Your task to perform on an android device: Open Google Chrome and open the bookmarks view Image 0: 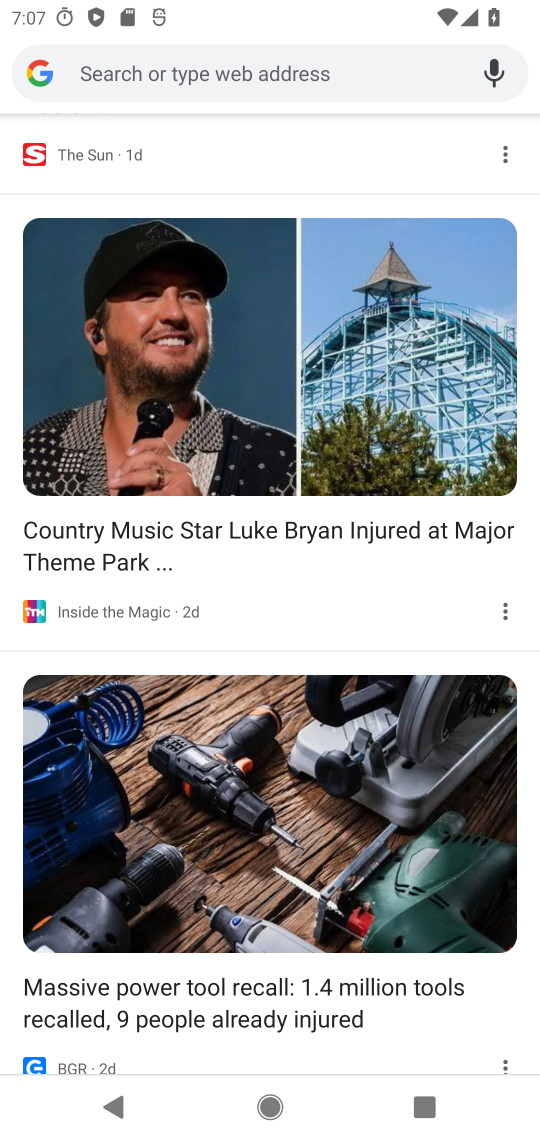
Step 0: drag from (257, 727) to (205, 325)
Your task to perform on an android device: Open Google Chrome and open the bookmarks view Image 1: 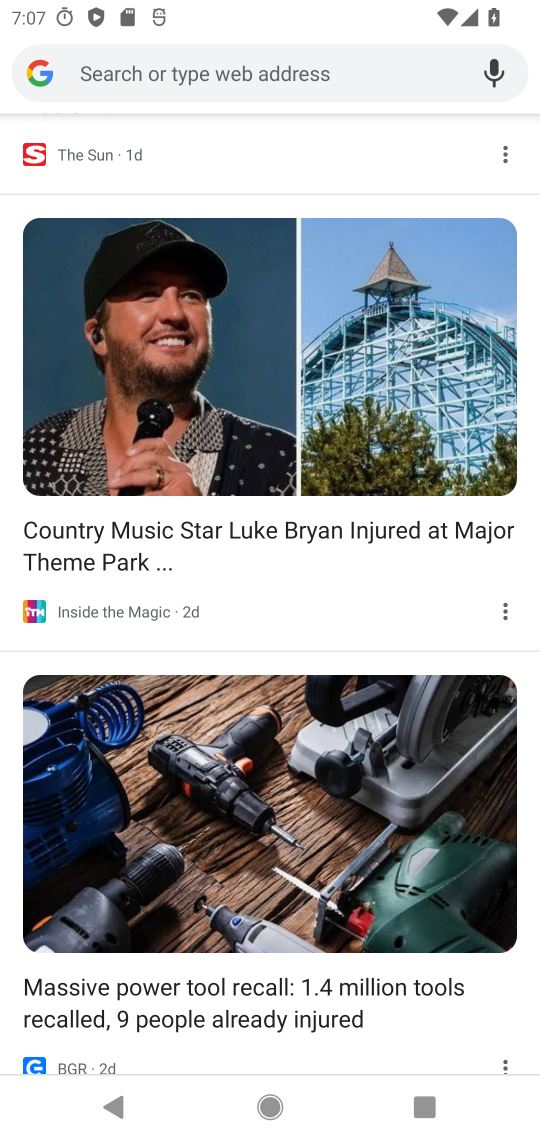
Step 1: press back button
Your task to perform on an android device: Open Google Chrome and open the bookmarks view Image 2: 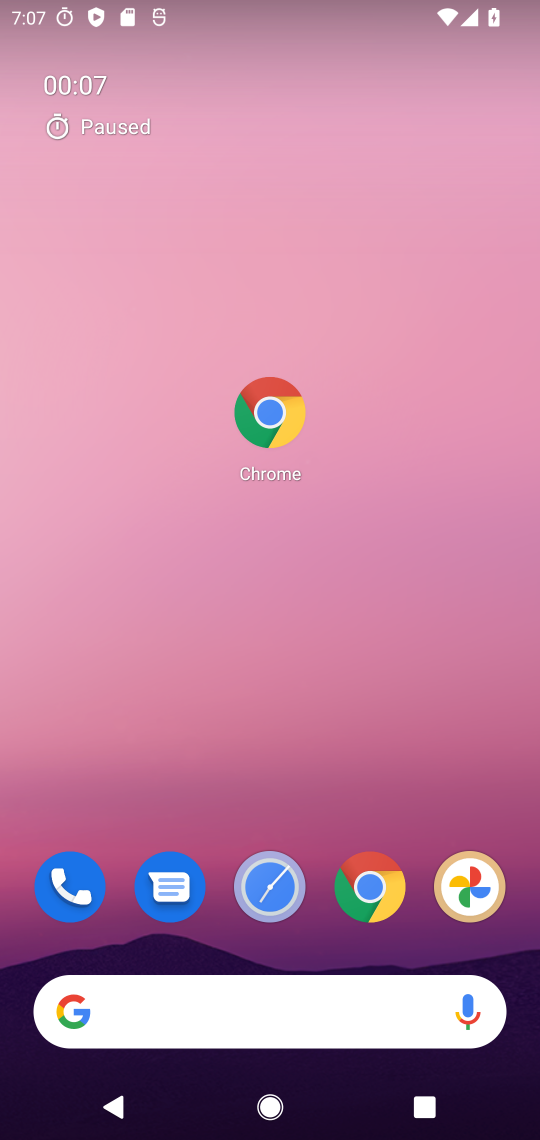
Step 2: press home button
Your task to perform on an android device: Open Google Chrome and open the bookmarks view Image 3: 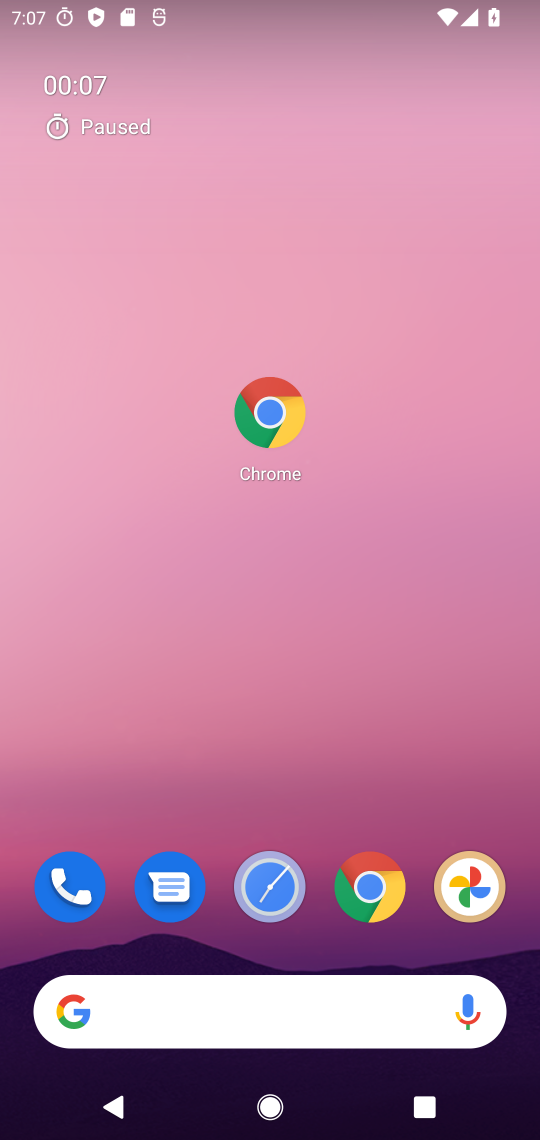
Step 3: drag from (298, 1015) to (306, 453)
Your task to perform on an android device: Open Google Chrome and open the bookmarks view Image 4: 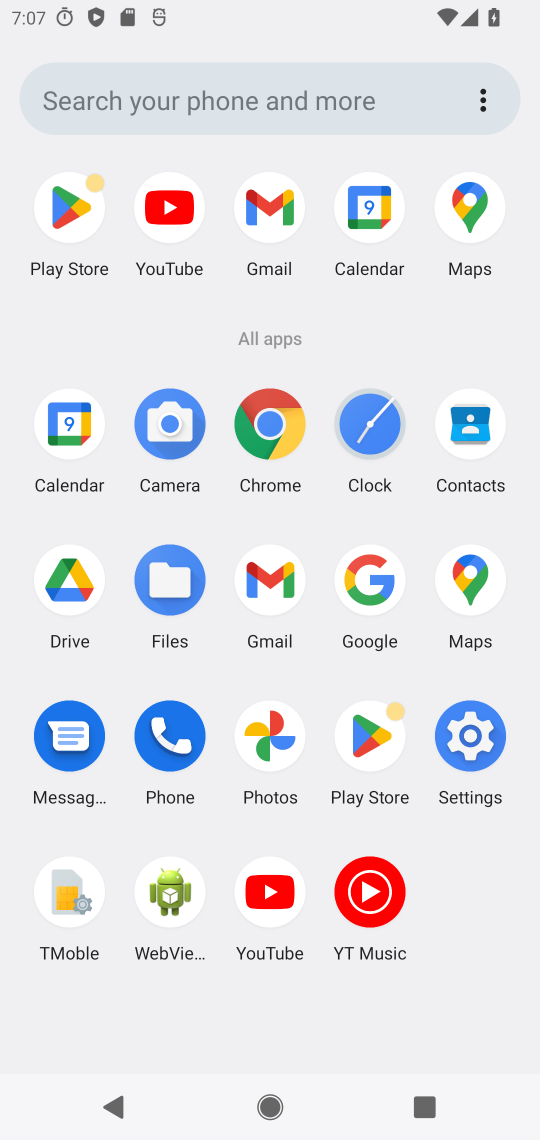
Step 4: click (256, 445)
Your task to perform on an android device: Open Google Chrome and open the bookmarks view Image 5: 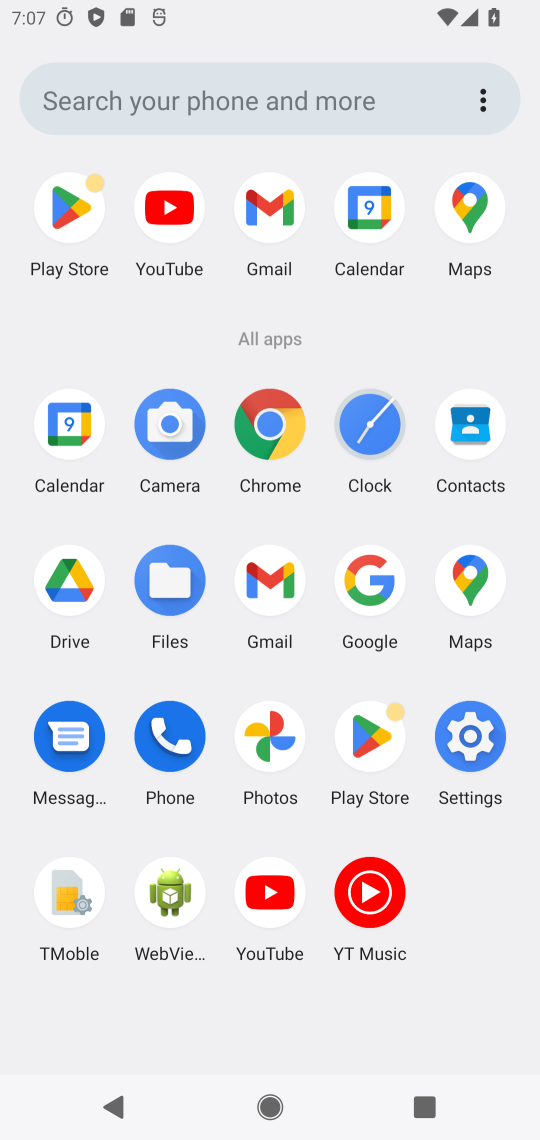
Step 5: click (273, 428)
Your task to perform on an android device: Open Google Chrome and open the bookmarks view Image 6: 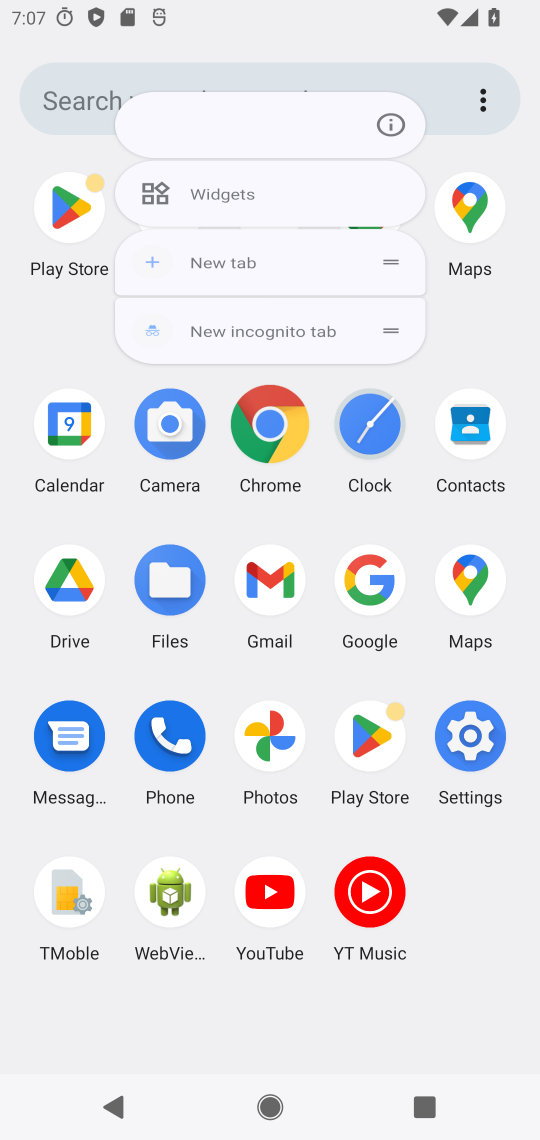
Step 6: click (295, 414)
Your task to perform on an android device: Open Google Chrome and open the bookmarks view Image 7: 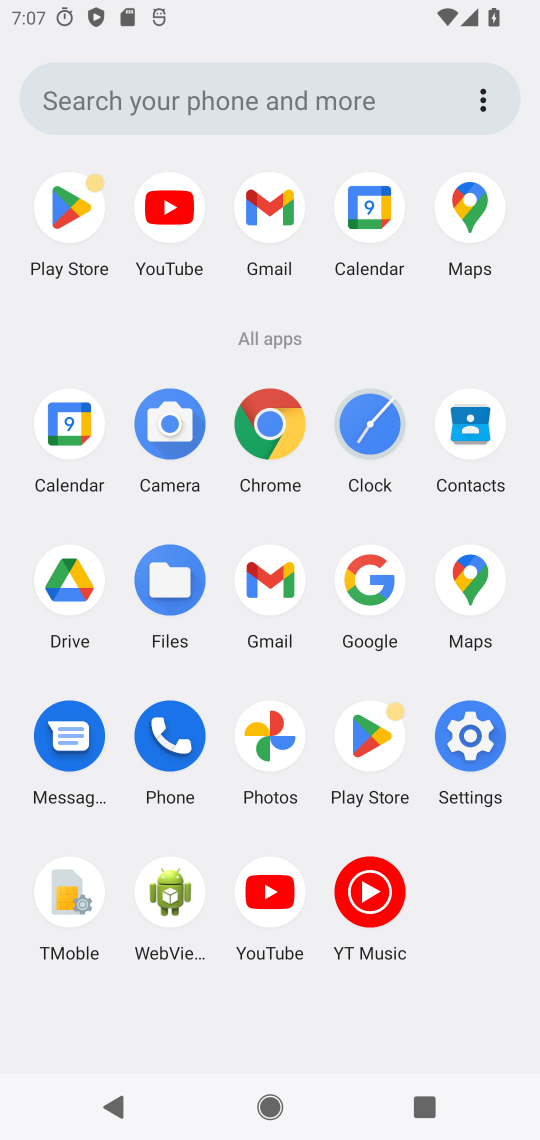
Step 7: click (285, 420)
Your task to perform on an android device: Open Google Chrome and open the bookmarks view Image 8: 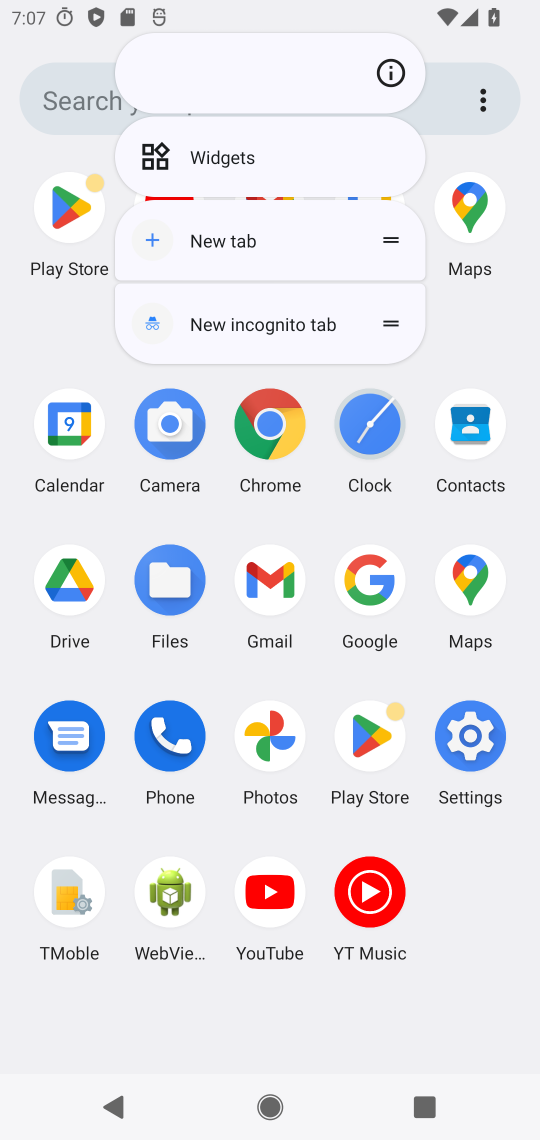
Step 8: click (287, 426)
Your task to perform on an android device: Open Google Chrome and open the bookmarks view Image 9: 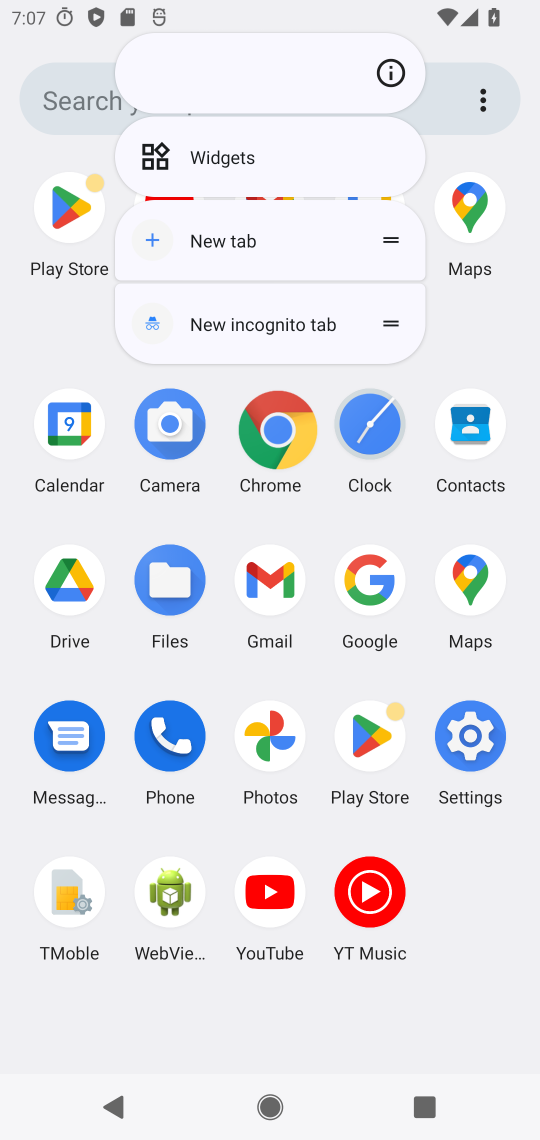
Step 9: click (275, 436)
Your task to perform on an android device: Open Google Chrome and open the bookmarks view Image 10: 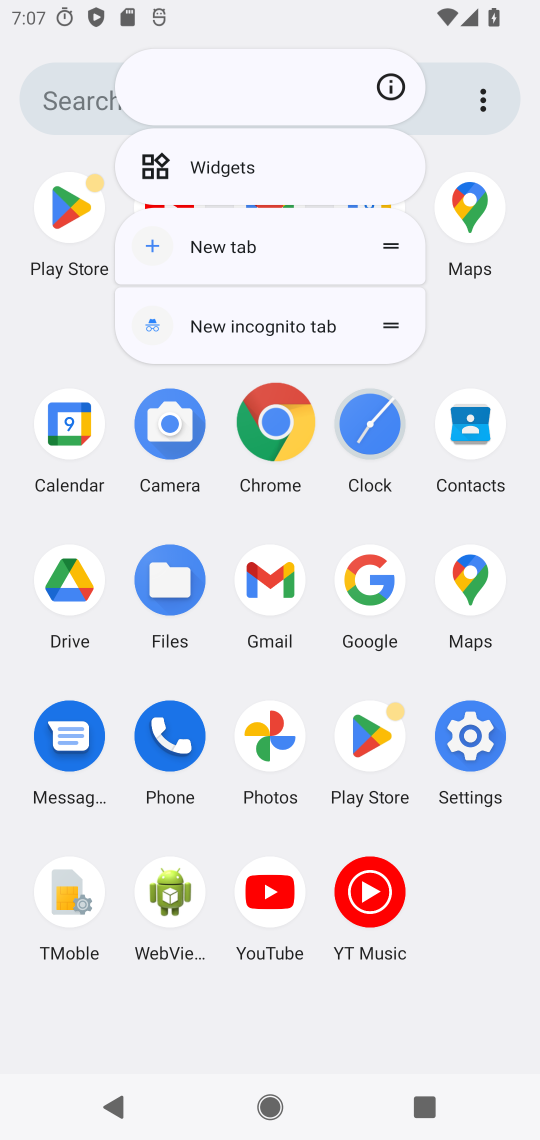
Step 10: click (281, 434)
Your task to perform on an android device: Open Google Chrome and open the bookmarks view Image 11: 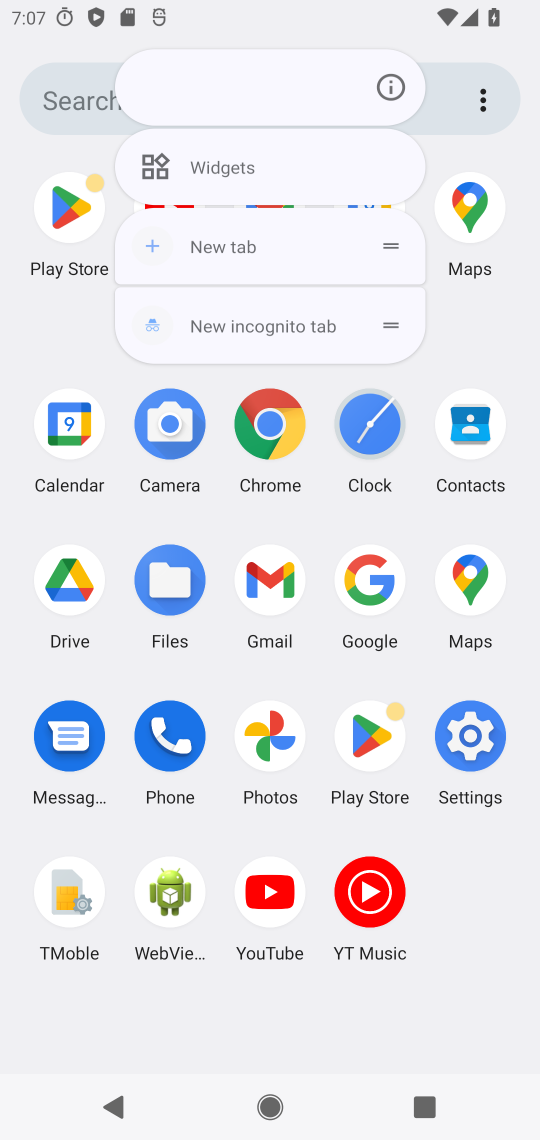
Step 11: click (281, 434)
Your task to perform on an android device: Open Google Chrome and open the bookmarks view Image 12: 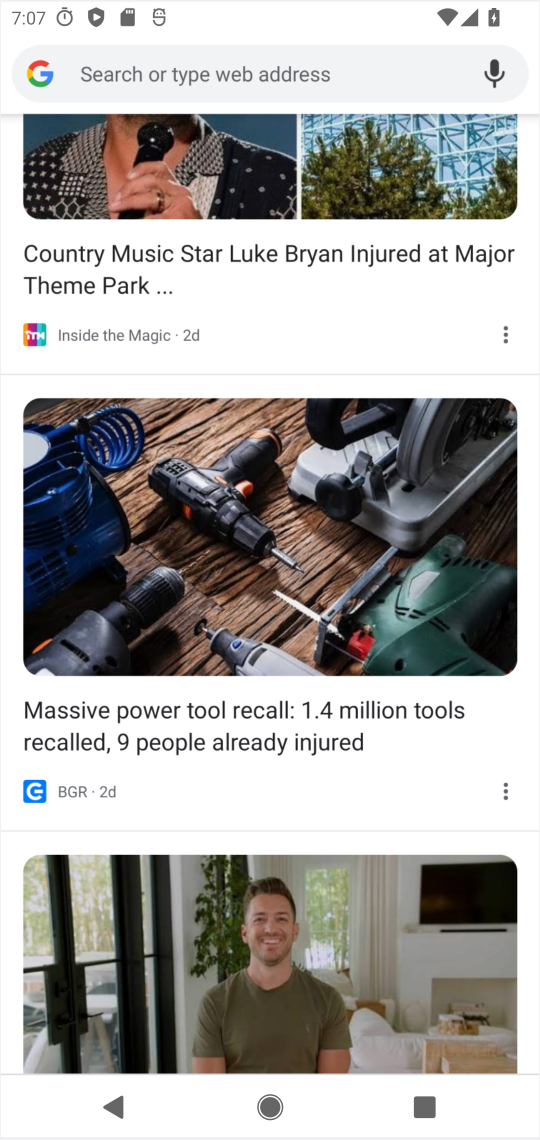
Step 12: click (271, 432)
Your task to perform on an android device: Open Google Chrome and open the bookmarks view Image 13: 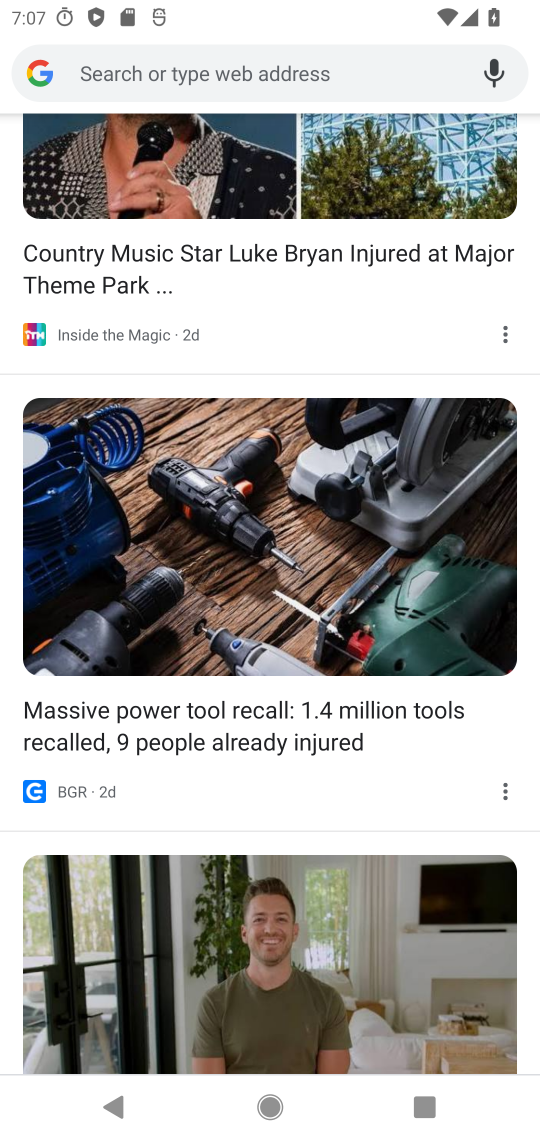
Step 13: drag from (318, 307) to (402, 803)
Your task to perform on an android device: Open Google Chrome and open the bookmarks view Image 14: 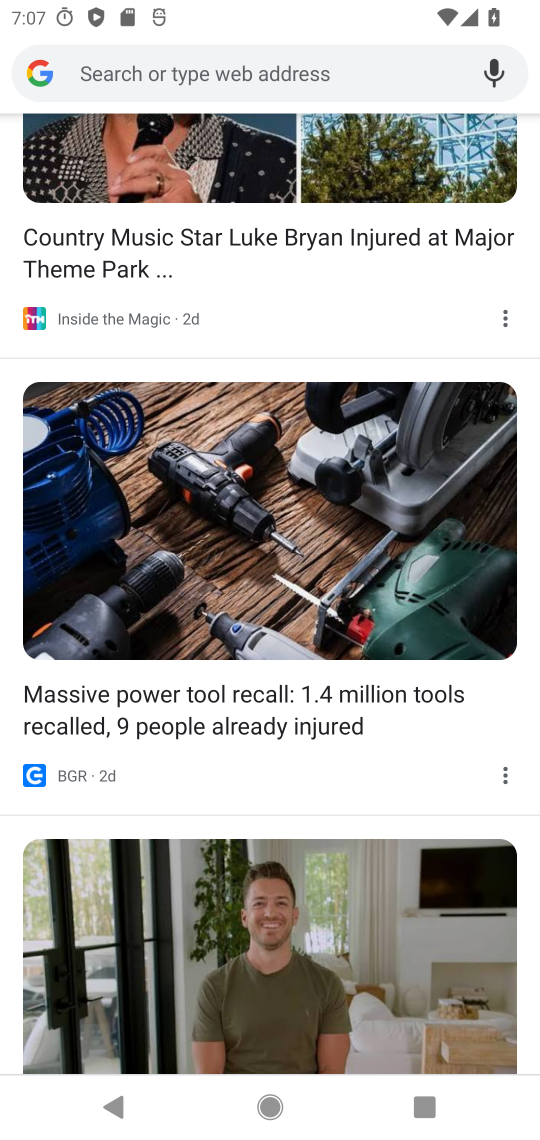
Step 14: drag from (367, 550) to (385, 720)
Your task to perform on an android device: Open Google Chrome and open the bookmarks view Image 15: 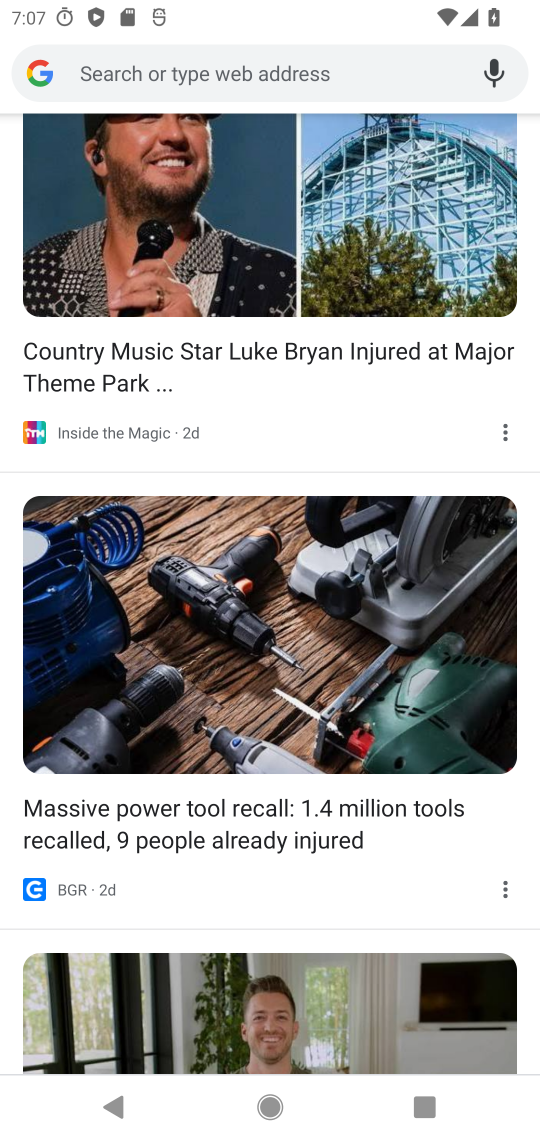
Step 15: drag from (399, 333) to (280, 874)
Your task to perform on an android device: Open Google Chrome and open the bookmarks view Image 16: 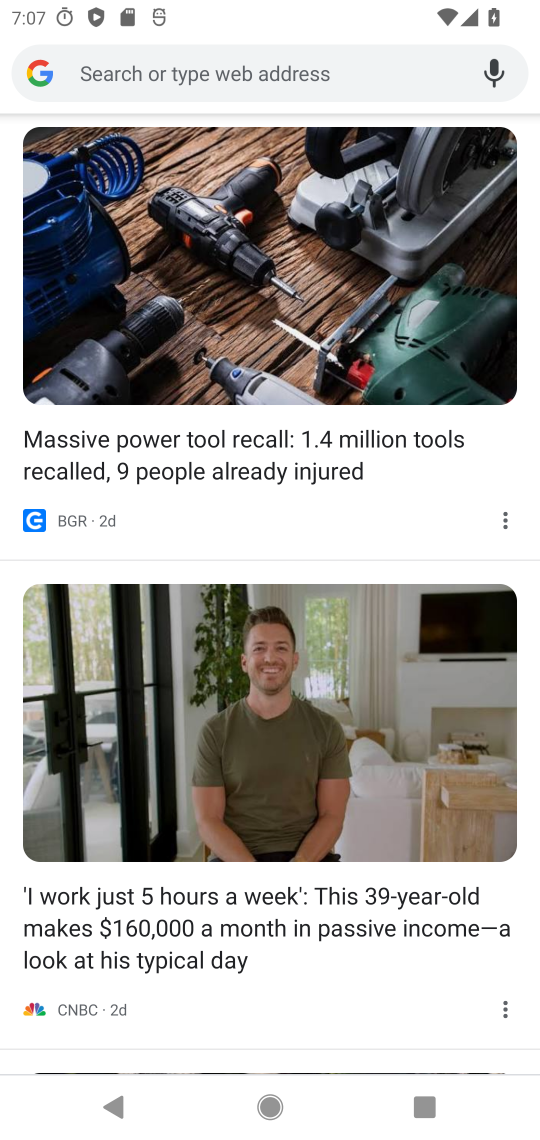
Step 16: drag from (311, 215) to (436, 602)
Your task to perform on an android device: Open Google Chrome and open the bookmarks view Image 17: 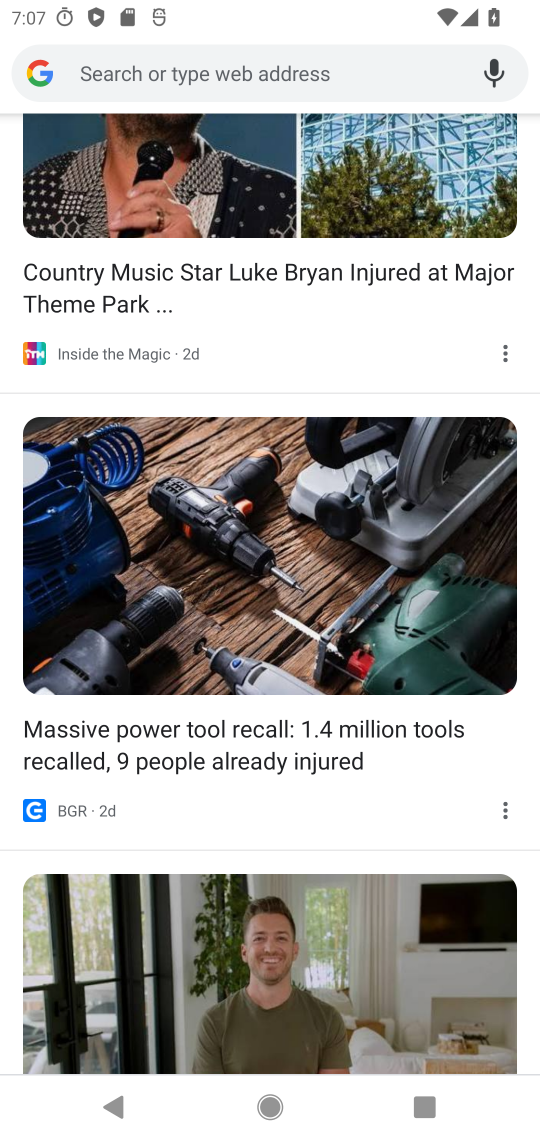
Step 17: drag from (377, 270) to (418, 586)
Your task to perform on an android device: Open Google Chrome and open the bookmarks view Image 18: 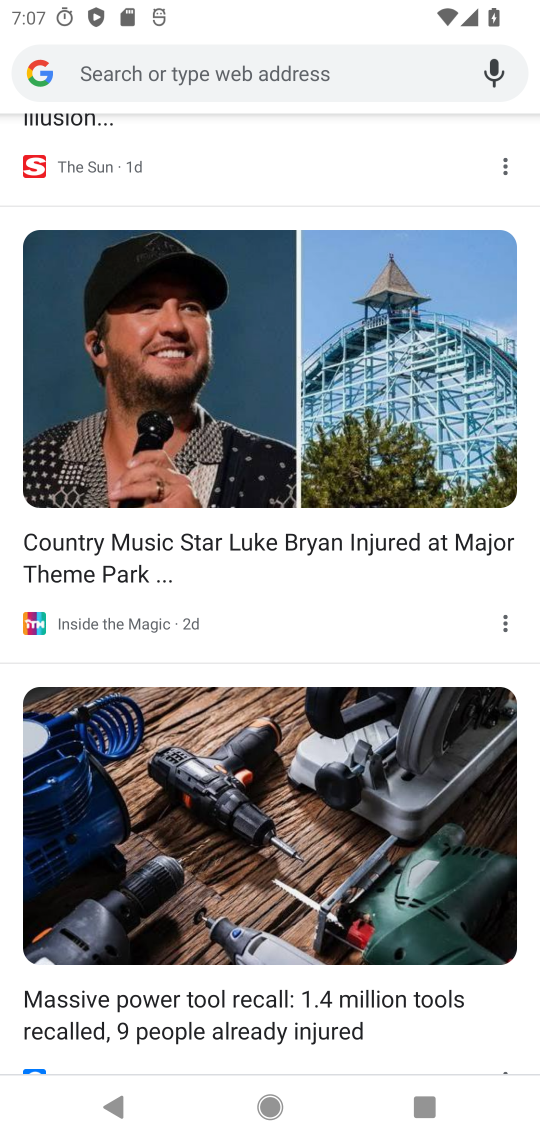
Step 18: drag from (339, 224) to (405, 754)
Your task to perform on an android device: Open Google Chrome and open the bookmarks view Image 19: 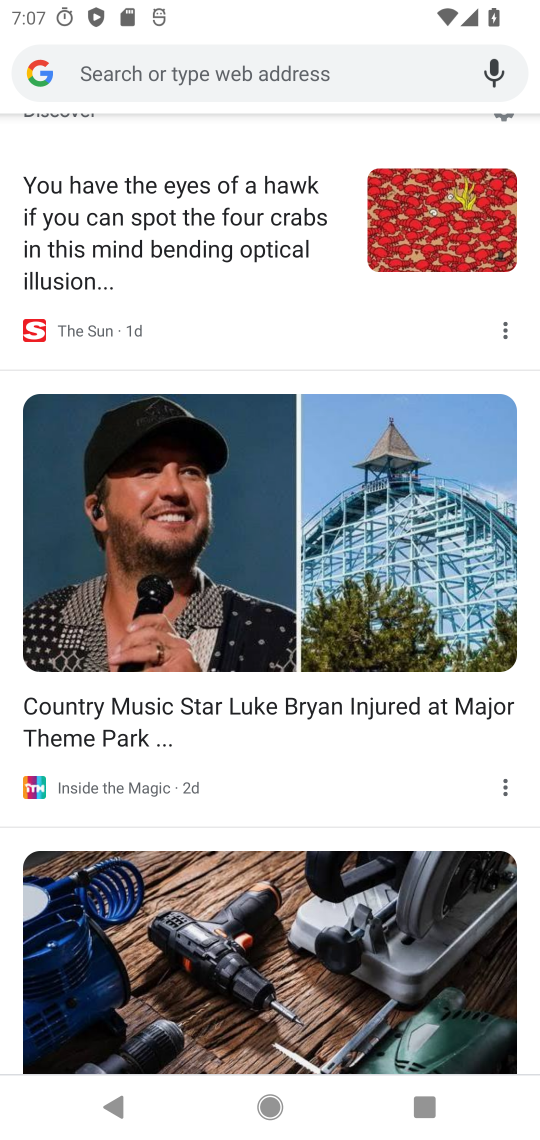
Step 19: drag from (470, 494) to (313, 731)
Your task to perform on an android device: Open Google Chrome and open the bookmarks view Image 20: 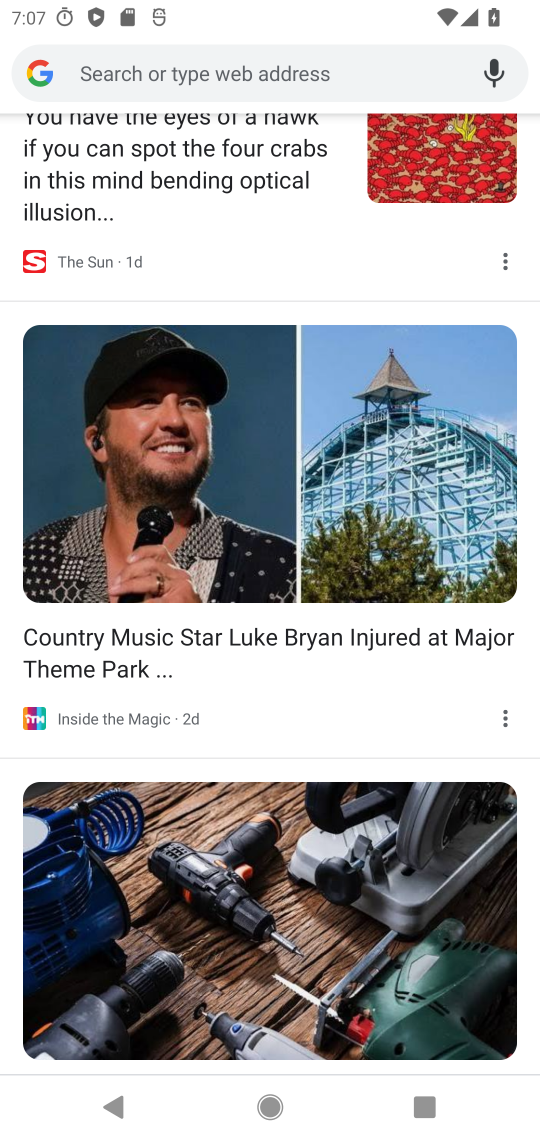
Step 20: drag from (290, 458) to (317, 747)
Your task to perform on an android device: Open Google Chrome and open the bookmarks view Image 21: 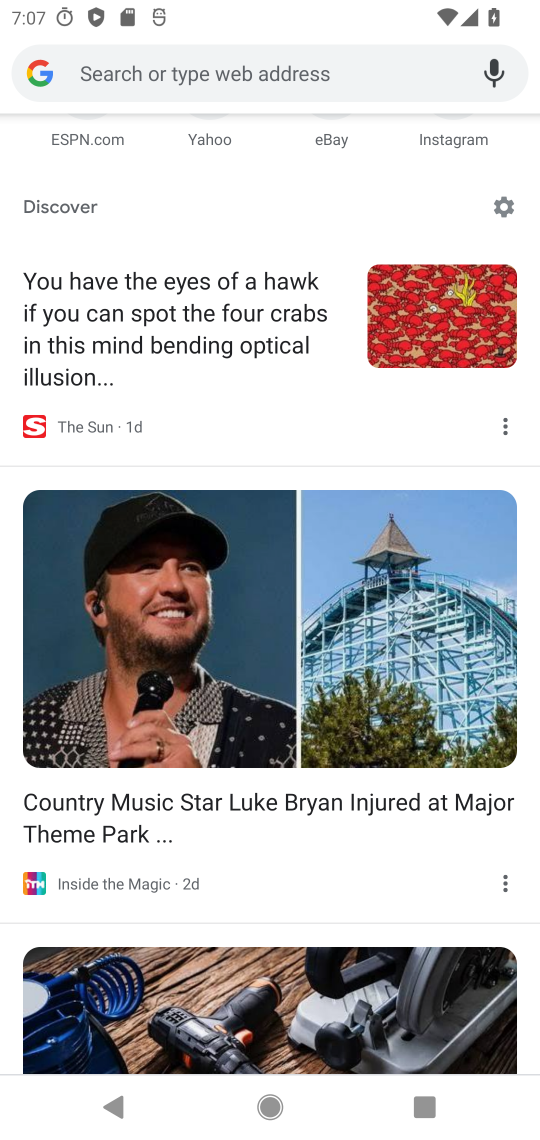
Step 21: drag from (292, 520) to (319, 703)
Your task to perform on an android device: Open Google Chrome and open the bookmarks view Image 22: 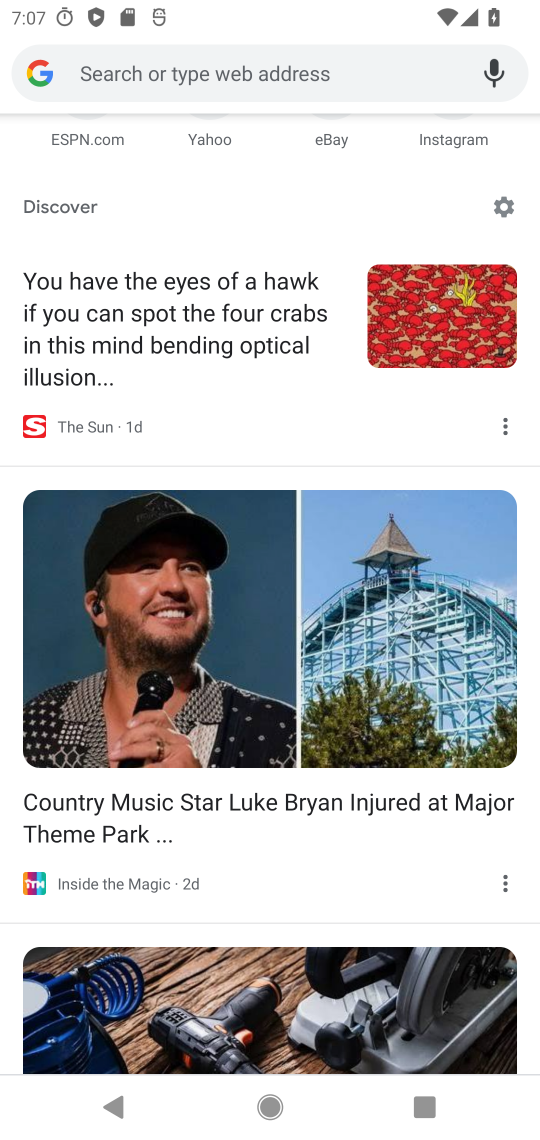
Step 22: drag from (285, 571) to (281, 701)
Your task to perform on an android device: Open Google Chrome and open the bookmarks view Image 23: 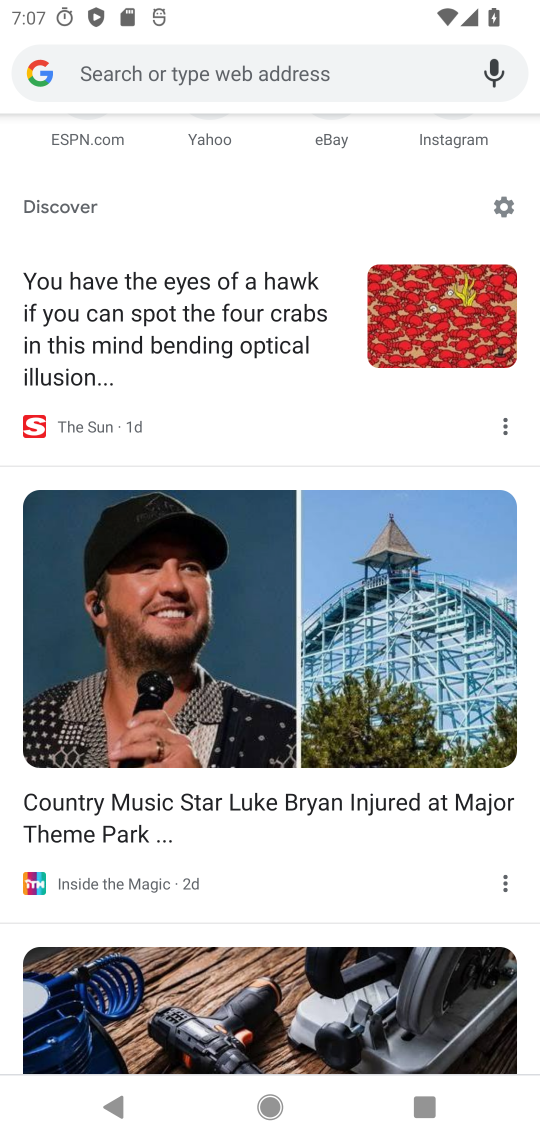
Step 23: drag from (290, 512) to (393, 793)
Your task to perform on an android device: Open Google Chrome and open the bookmarks view Image 24: 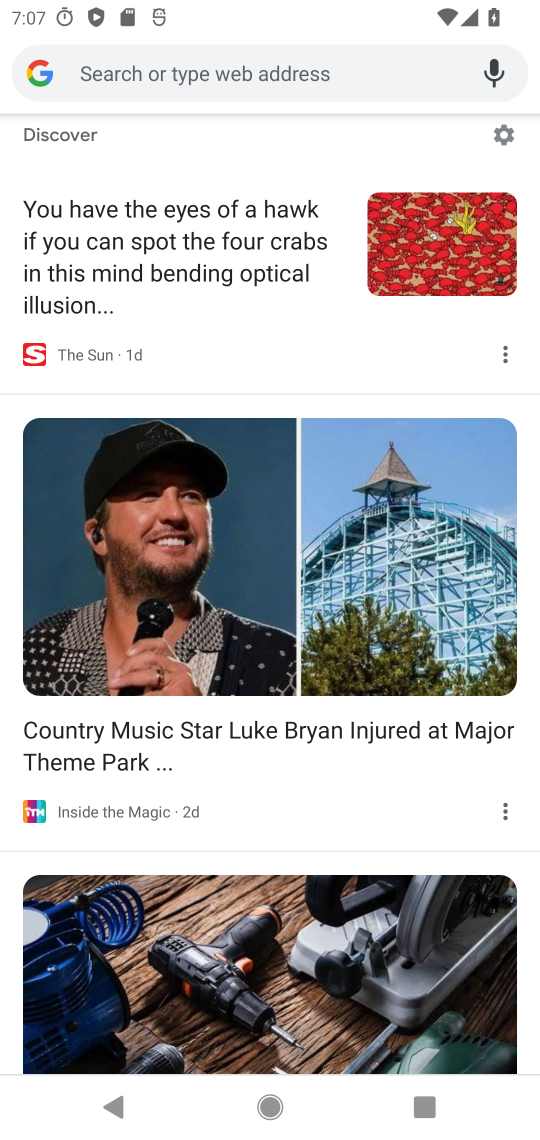
Step 24: drag from (397, 429) to (307, 673)
Your task to perform on an android device: Open Google Chrome and open the bookmarks view Image 25: 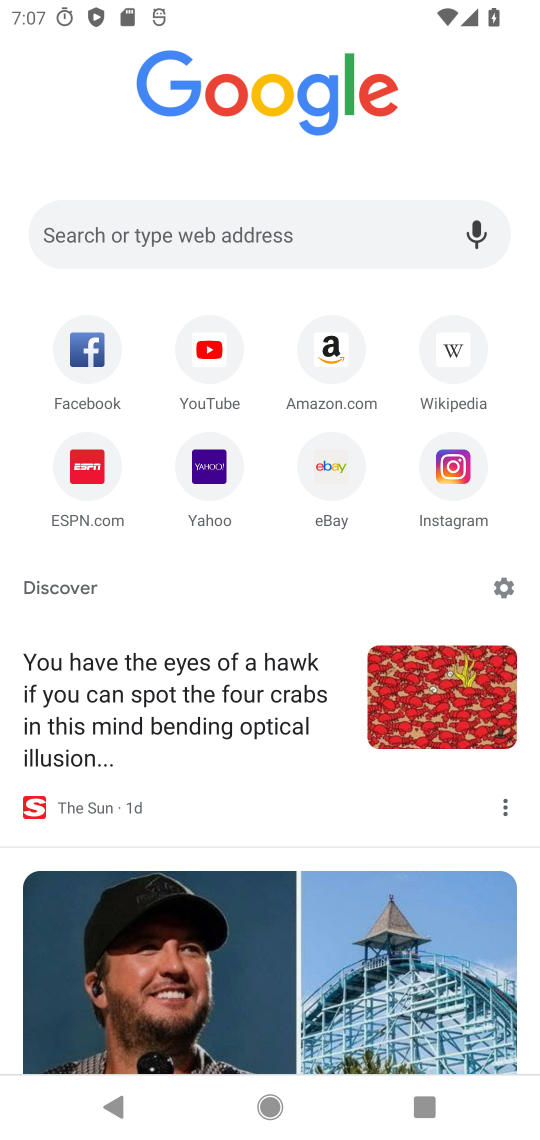
Step 25: drag from (499, 72) to (410, 433)
Your task to perform on an android device: Open Google Chrome and open the bookmarks view Image 26: 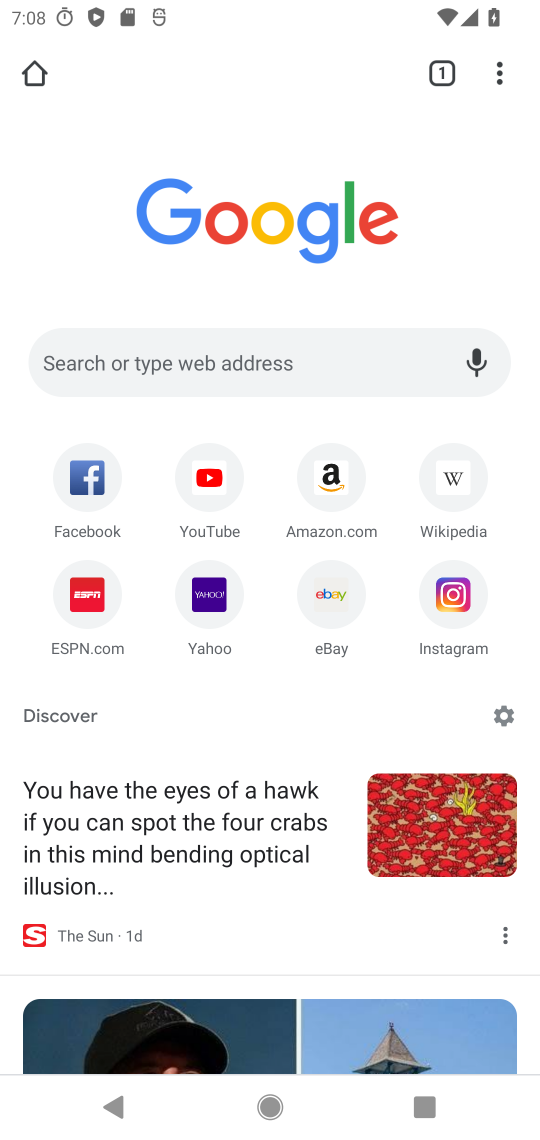
Step 26: drag from (331, 239) to (300, 677)
Your task to perform on an android device: Open Google Chrome and open the bookmarks view Image 27: 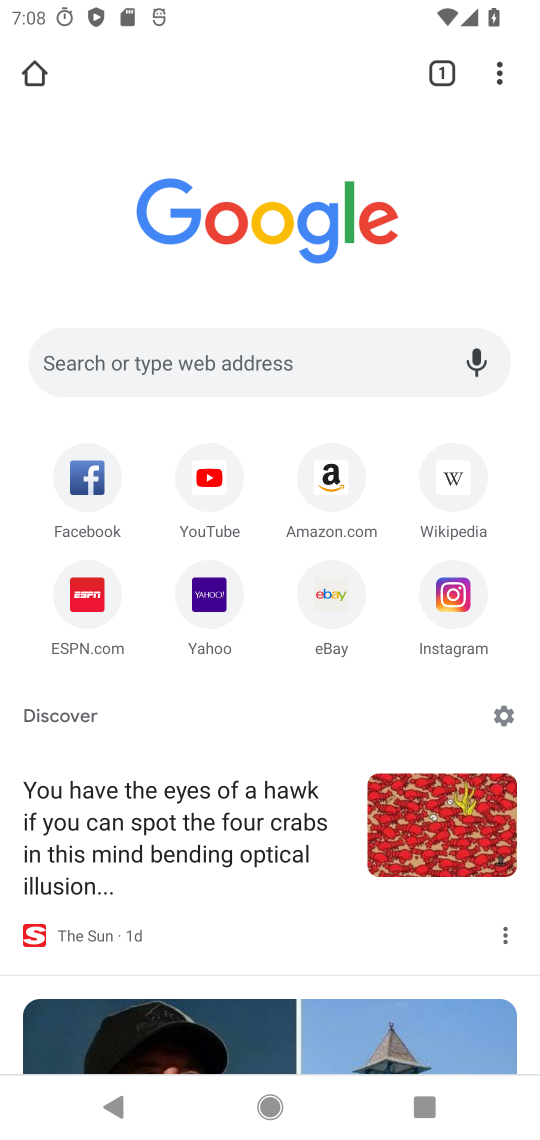
Step 27: drag from (498, 68) to (242, 437)
Your task to perform on an android device: Open Google Chrome and open the bookmarks view Image 28: 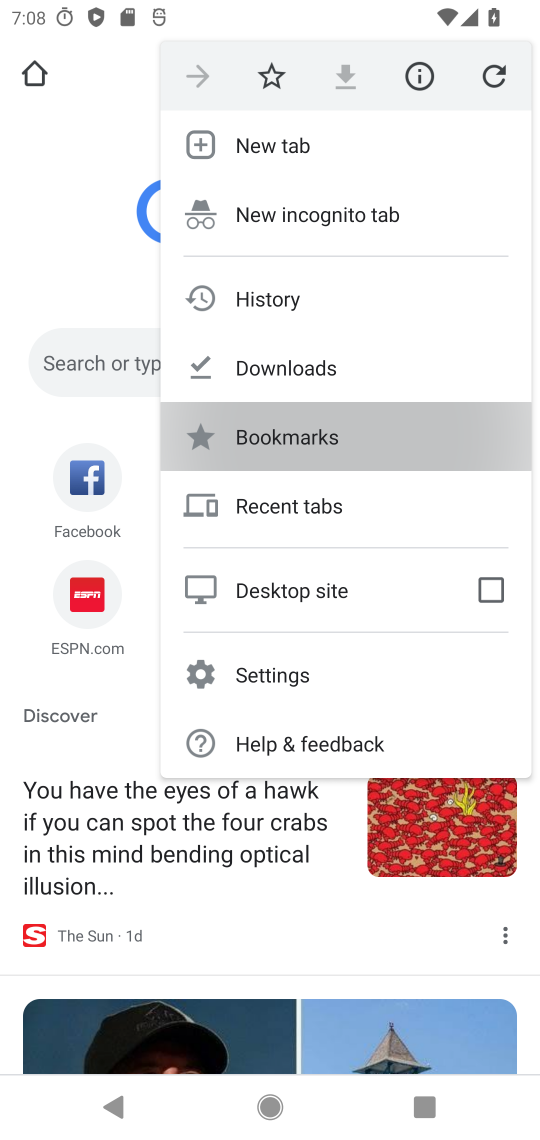
Step 28: click (243, 438)
Your task to perform on an android device: Open Google Chrome and open the bookmarks view Image 29: 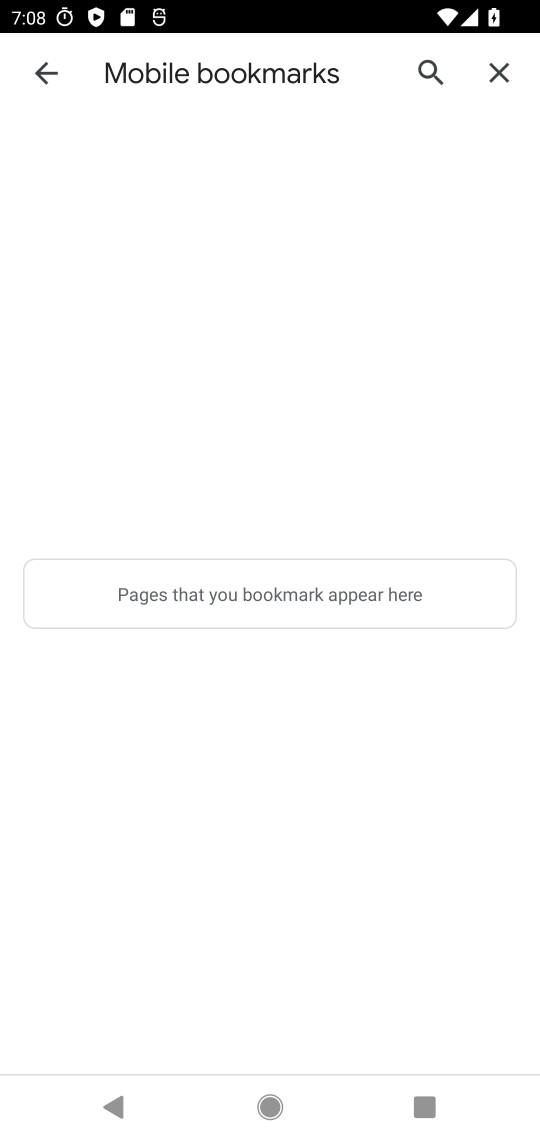
Step 29: task complete